Your task to perform on an android device: set the timer Image 0: 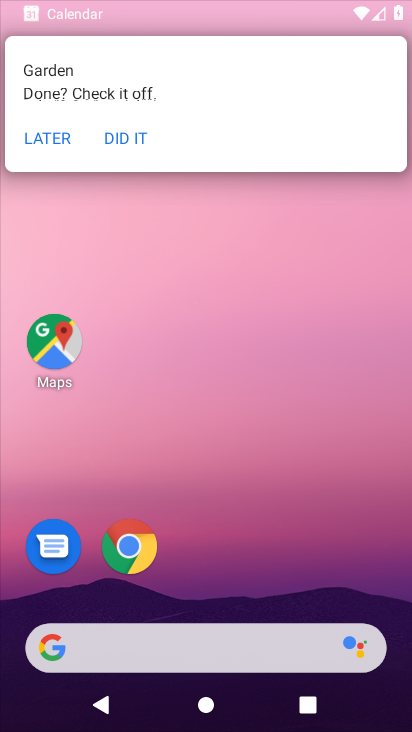
Step 0: click (48, 137)
Your task to perform on an android device: set the timer Image 1: 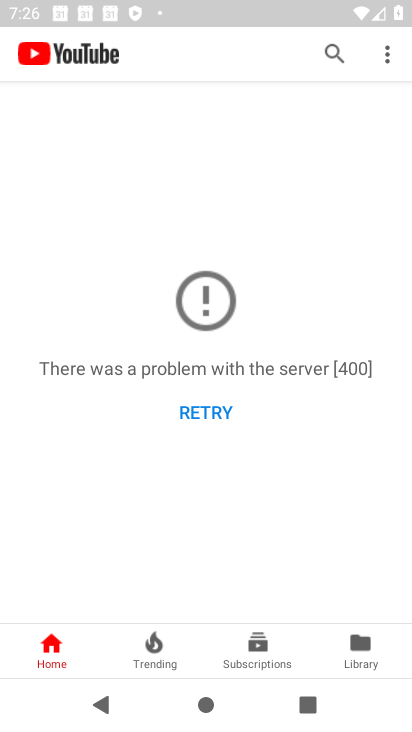
Step 1: press home button
Your task to perform on an android device: set the timer Image 2: 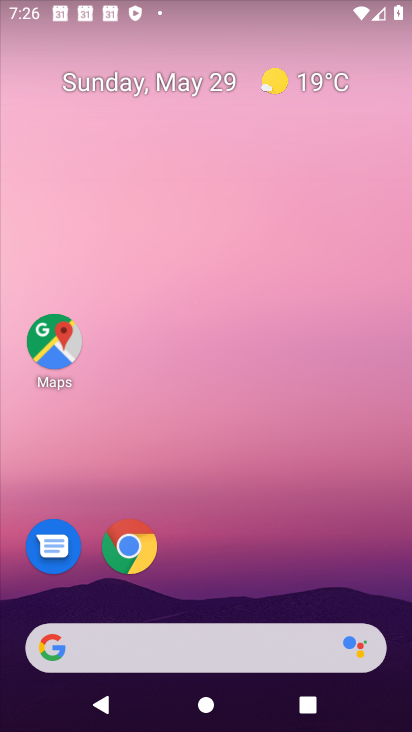
Step 2: drag from (266, 553) to (135, 48)
Your task to perform on an android device: set the timer Image 3: 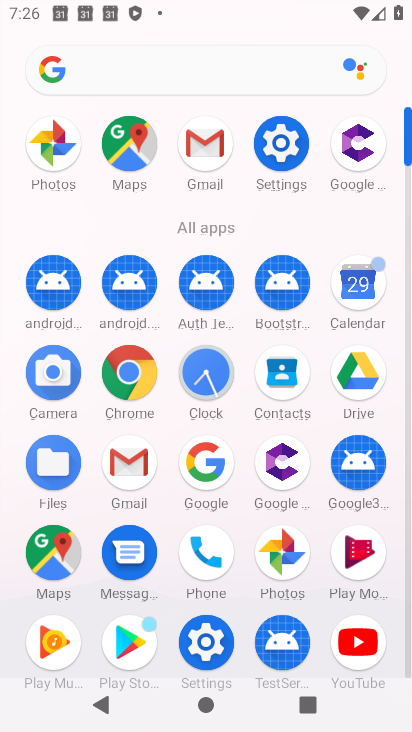
Step 3: click (214, 370)
Your task to perform on an android device: set the timer Image 4: 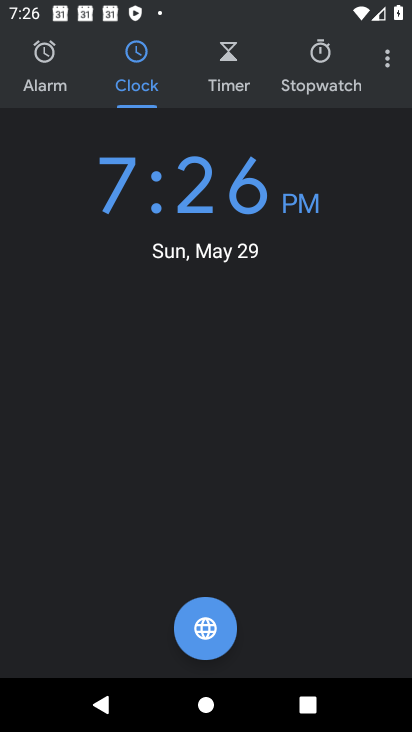
Step 4: click (236, 70)
Your task to perform on an android device: set the timer Image 5: 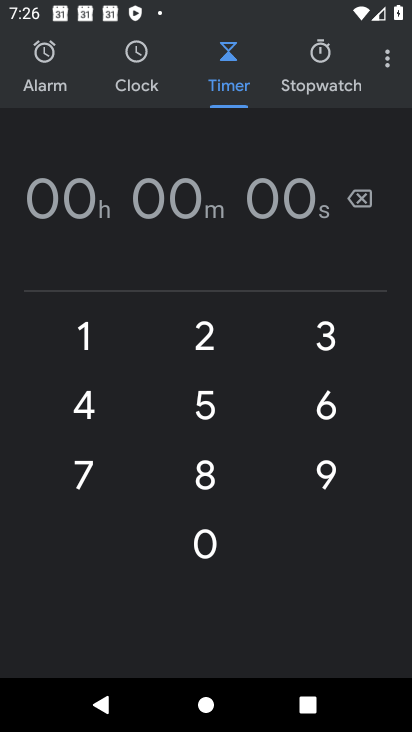
Step 5: click (206, 331)
Your task to perform on an android device: set the timer Image 6: 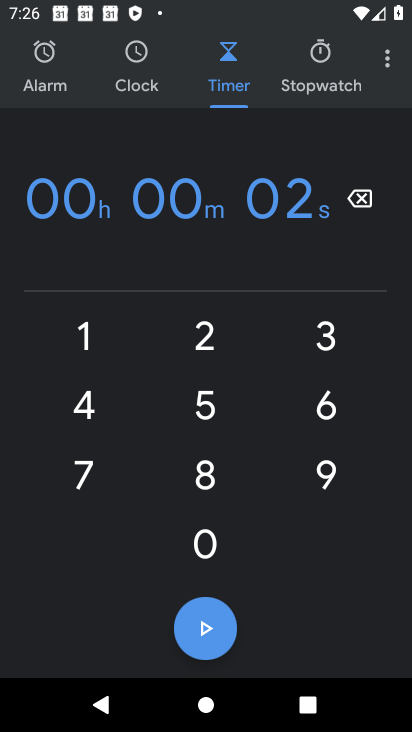
Step 6: click (209, 549)
Your task to perform on an android device: set the timer Image 7: 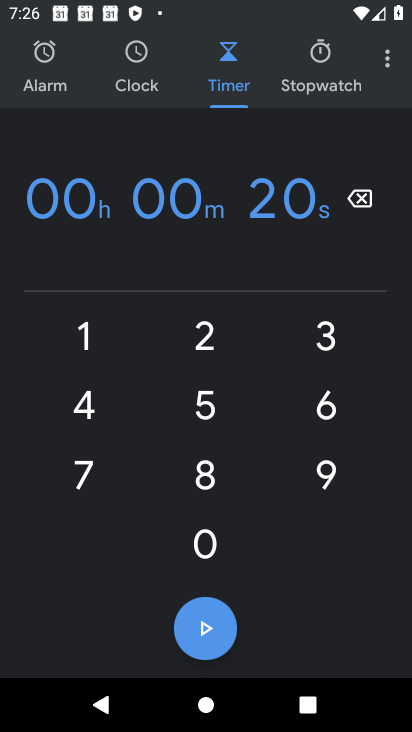
Step 7: click (219, 338)
Your task to perform on an android device: set the timer Image 8: 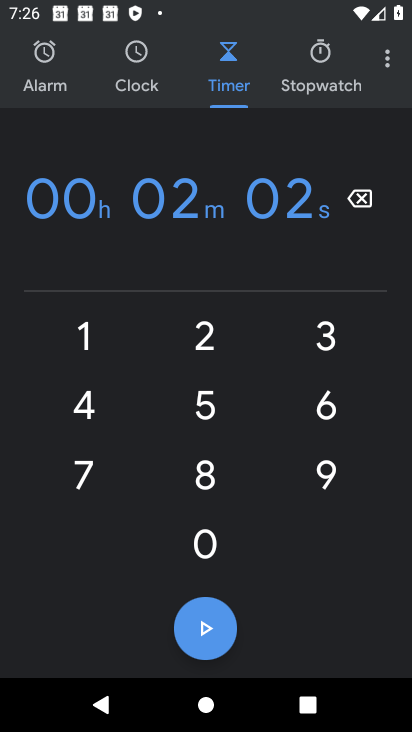
Step 8: click (205, 535)
Your task to perform on an android device: set the timer Image 9: 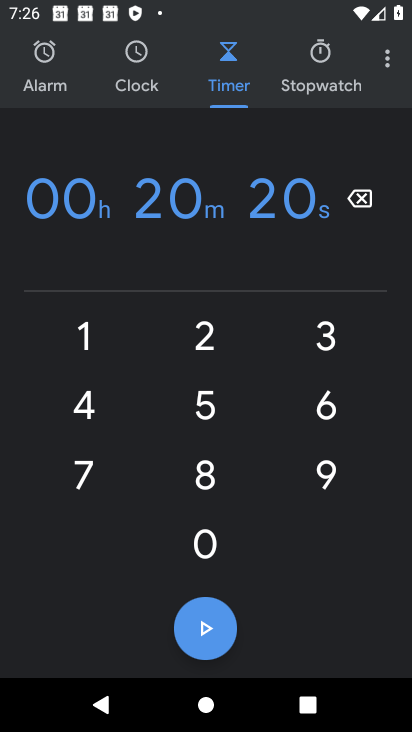
Step 9: click (200, 623)
Your task to perform on an android device: set the timer Image 10: 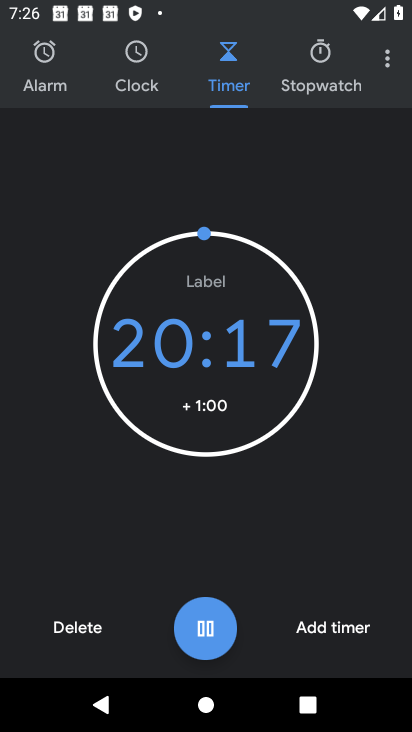
Step 10: click (335, 633)
Your task to perform on an android device: set the timer Image 11: 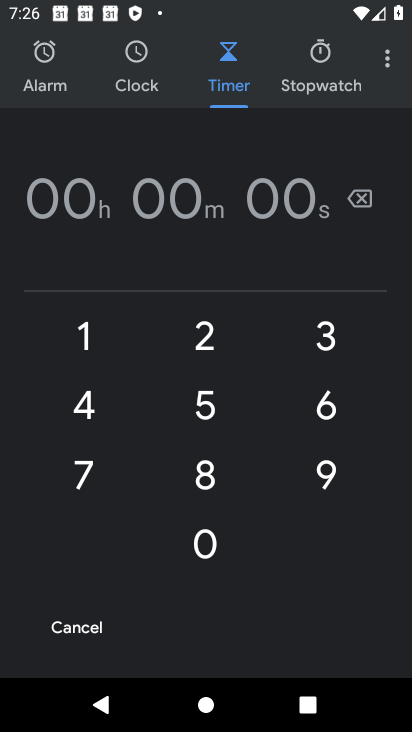
Step 11: task complete